Your task to perform on an android device: empty trash in google photos Image 0: 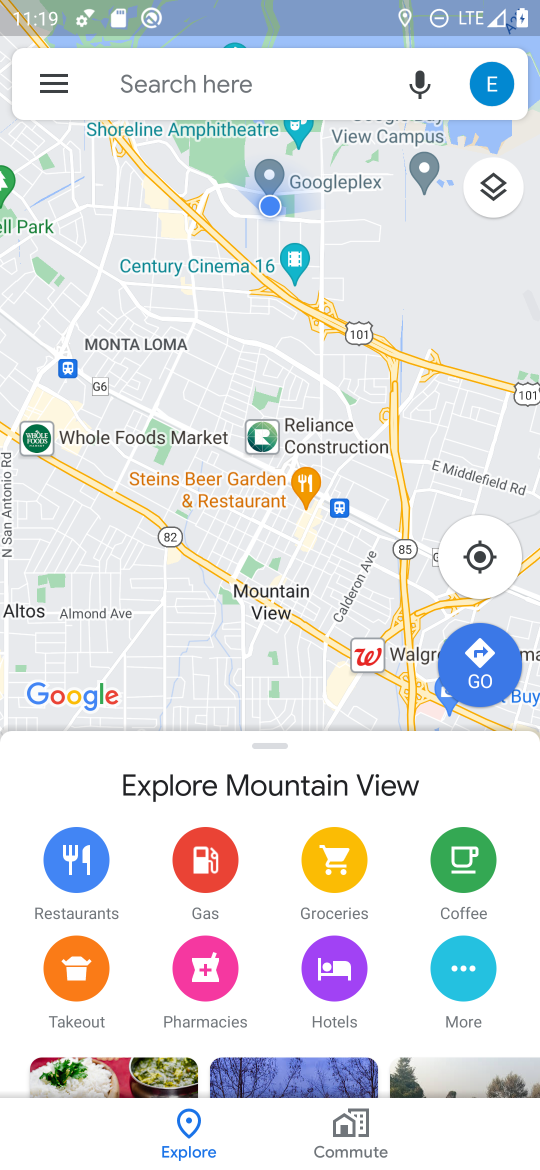
Step 0: press home button
Your task to perform on an android device: empty trash in google photos Image 1: 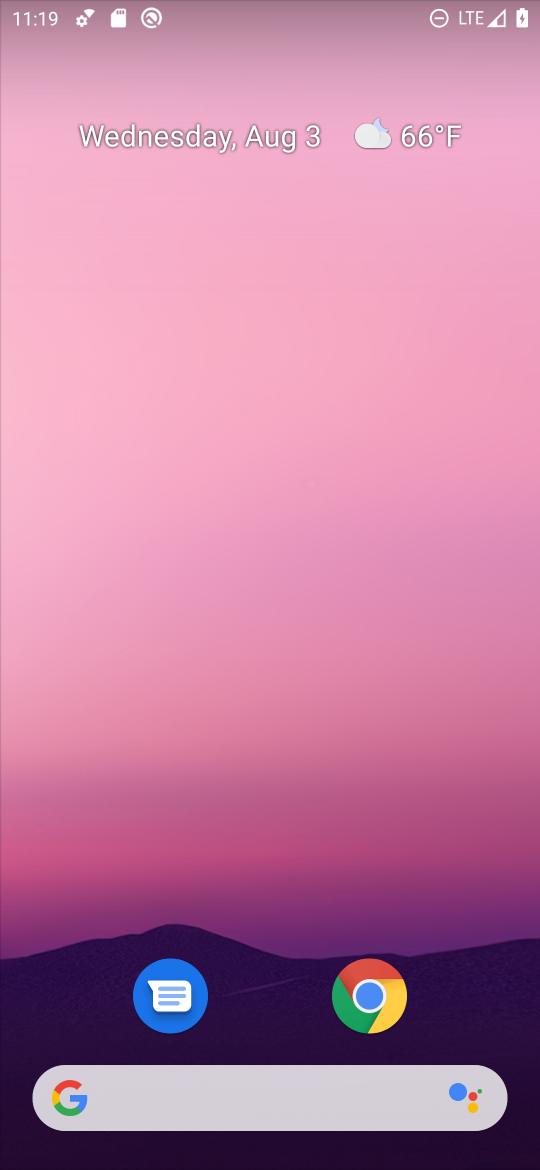
Step 1: drag from (279, 753) to (279, 0)
Your task to perform on an android device: empty trash in google photos Image 2: 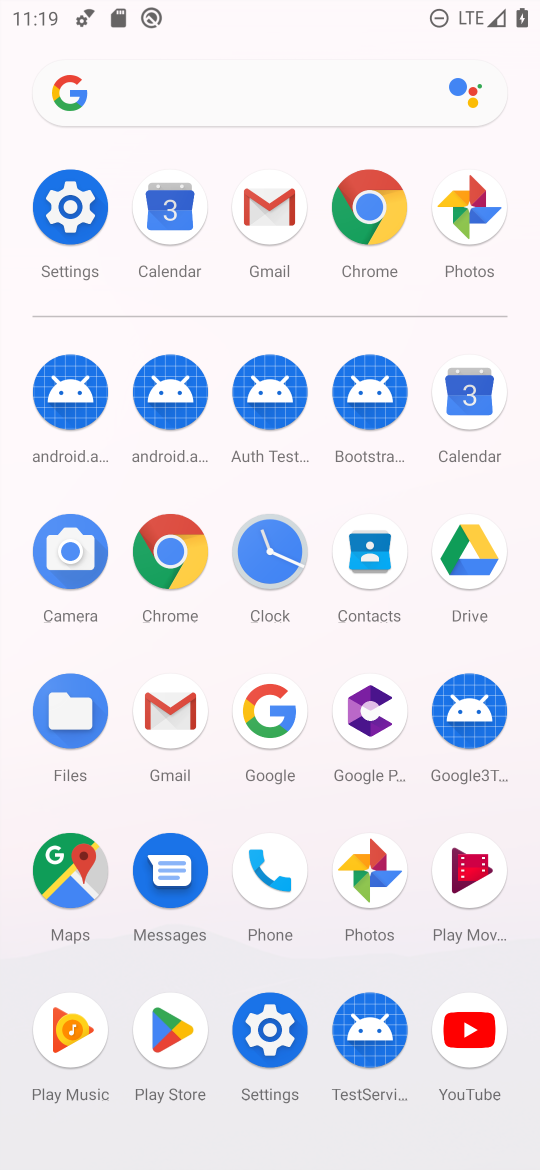
Step 2: click (466, 202)
Your task to perform on an android device: empty trash in google photos Image 3: 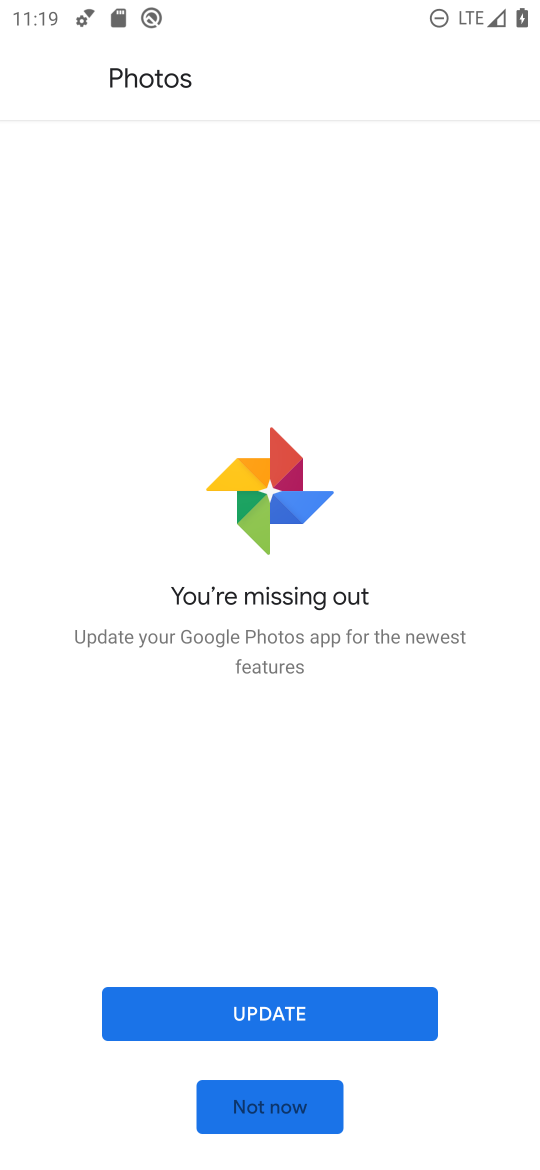
Step 3: click (297, 1119)
Your task to perform on an android device: empty trash in google photos Image 4: 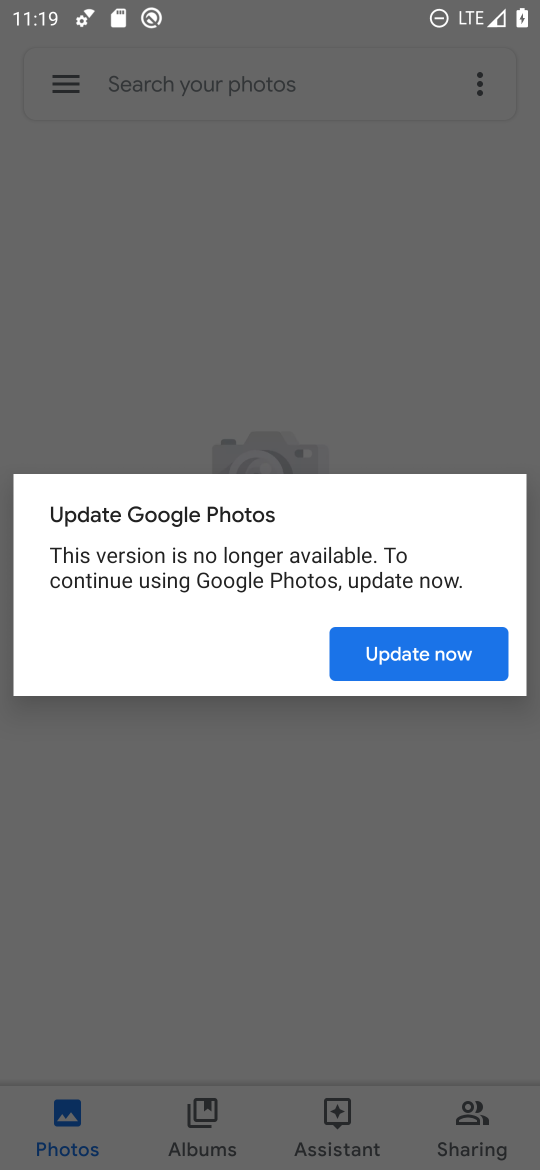
Step 4: click (426, 657)
Your task to perform on an android device: empty trash in google photos Image 5: 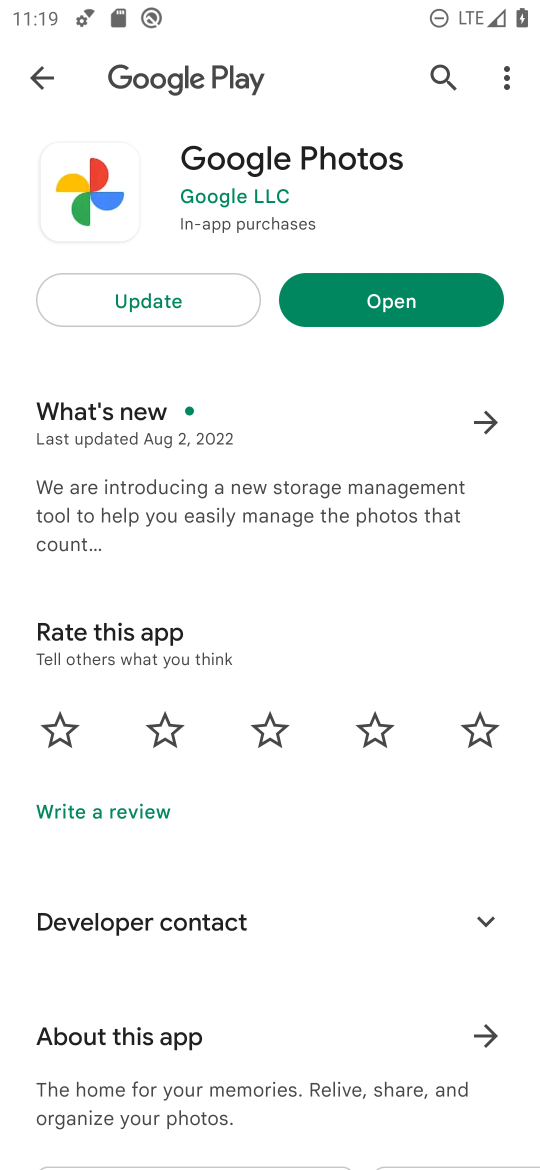
Step 5: click (431, 289)
Your task to perform on an android device: empty trash in google photos Image 6: 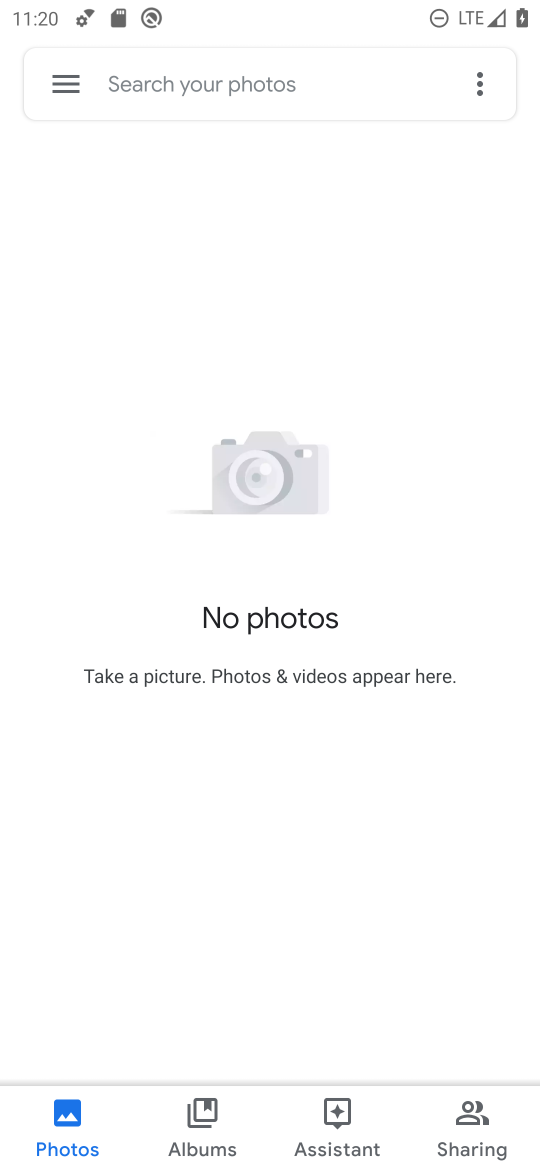
Step 6: click (63, 71)
Your task to perform on an android device: empty trash in google photos Image 7: 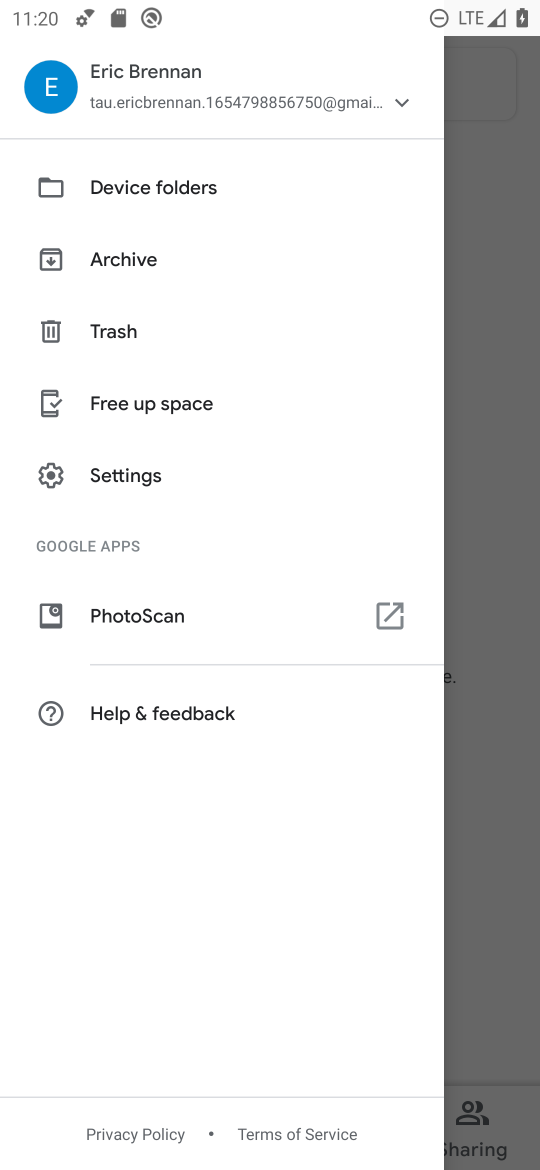
Step 7: click (116, 313)
Your task to perform on an android device: empty trash in google photos Image 8: 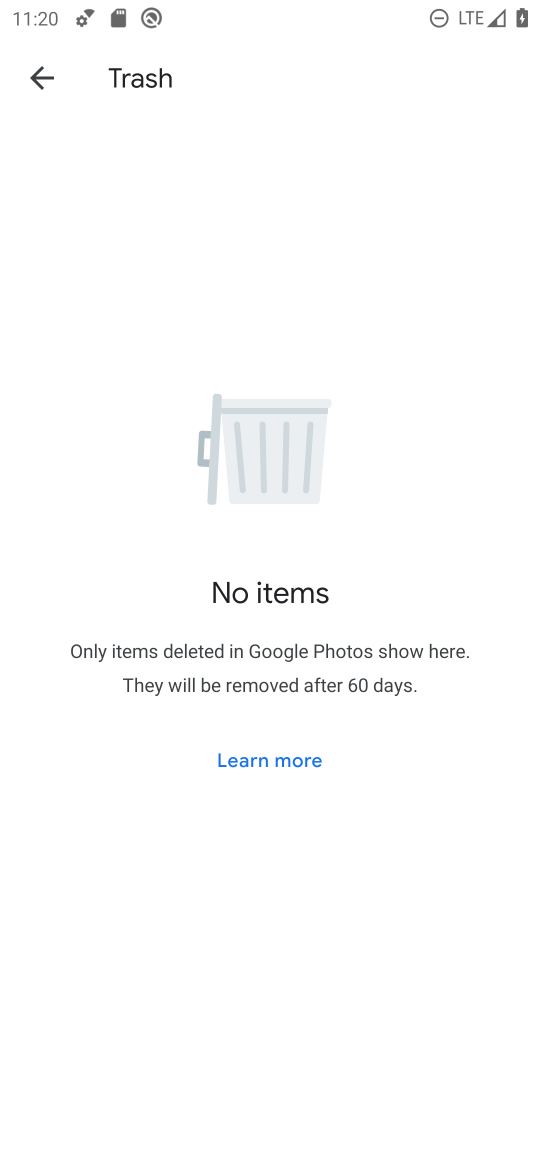
Step 8: task complete